Your task to perform on an android device: open a new tab in the chrome app Image 0: 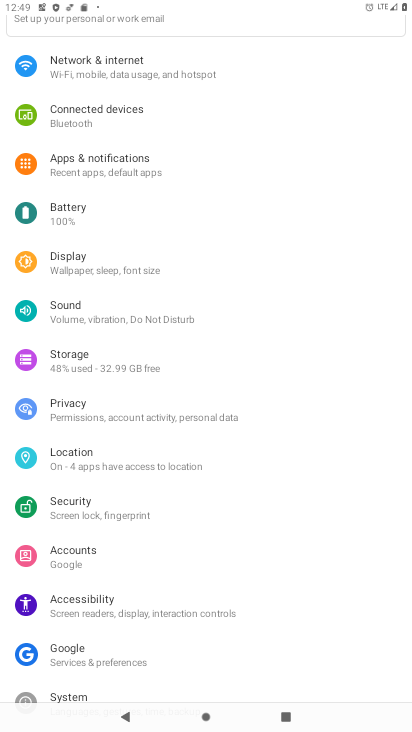
Step 0: press home button
Your task to perform on an android device: open a new tab in the chrome app Image 1: 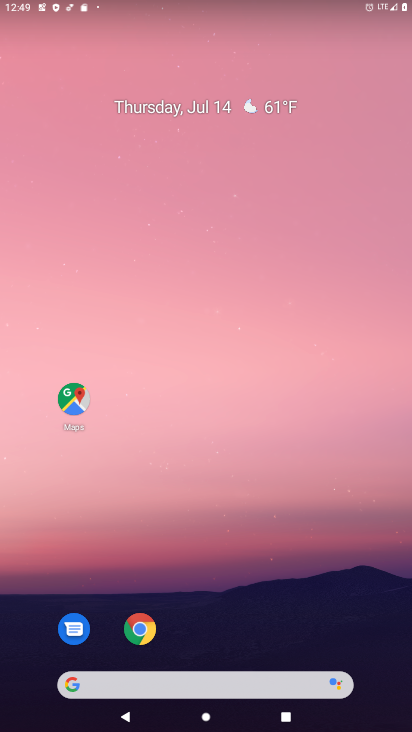
Step 1: drag from (241, 582) to (208, 293)
Your task to perform on an android device: open a new tab in the chrome app Image 2: 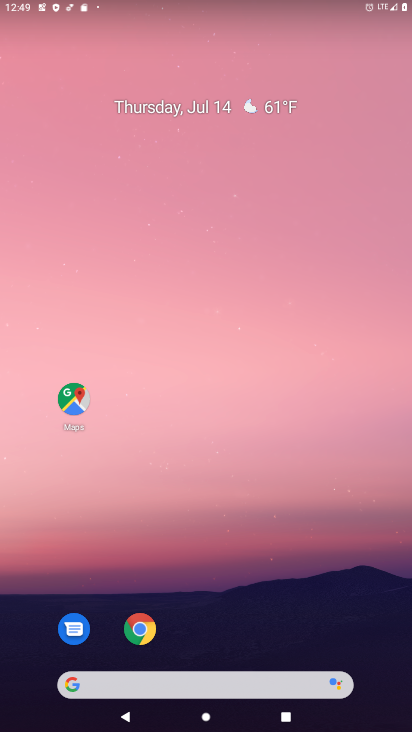
Step 2: click (139, 633)
Your task to perform on an android device: open a new tab in the chrome app Image 3: 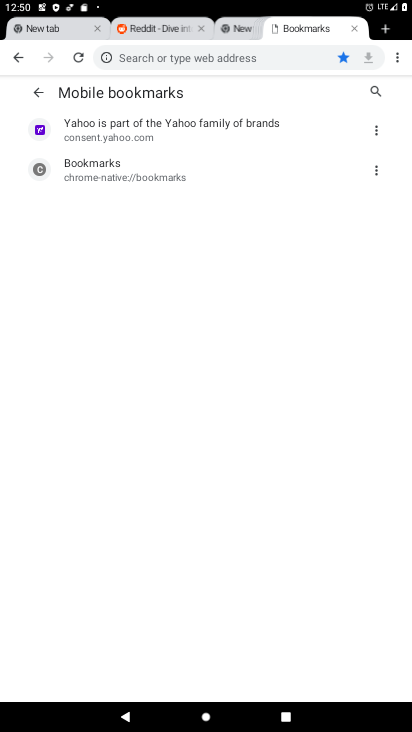
Step 3: click (396, 56)
Your task to perform on an android device: open a new tab in the chrome app Image 4: 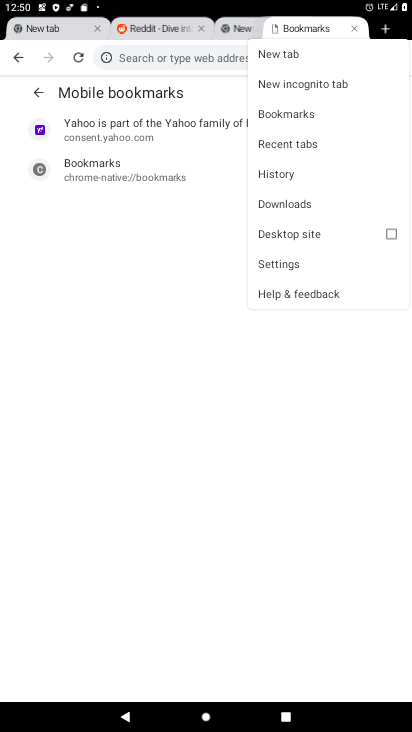
Step 4: click (288, 55)
Your task to perform on an android device: open a new tab in the chrome app Image 5: 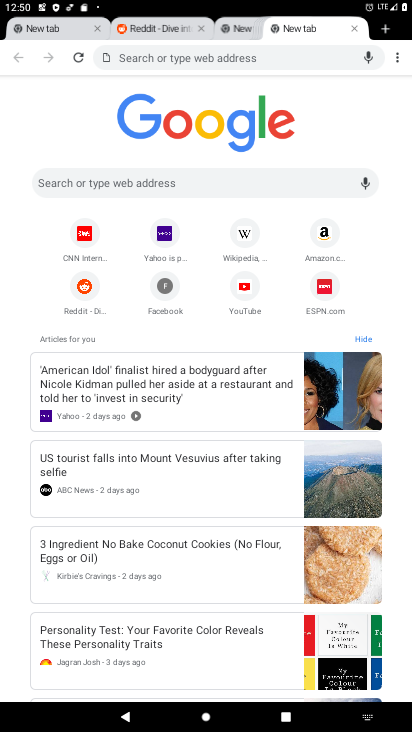
Step 5: task complete